Your task to perform on an android device: Do I have any events today? Image 0: 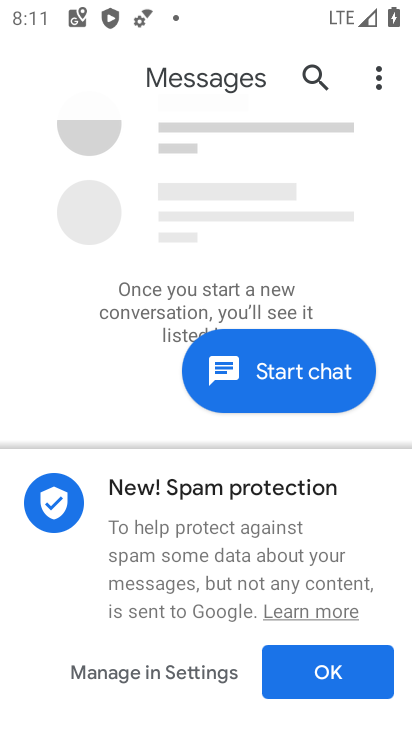
Step 0: press home button
Your task to perform on an android device: Do I have any events today? Image 1: 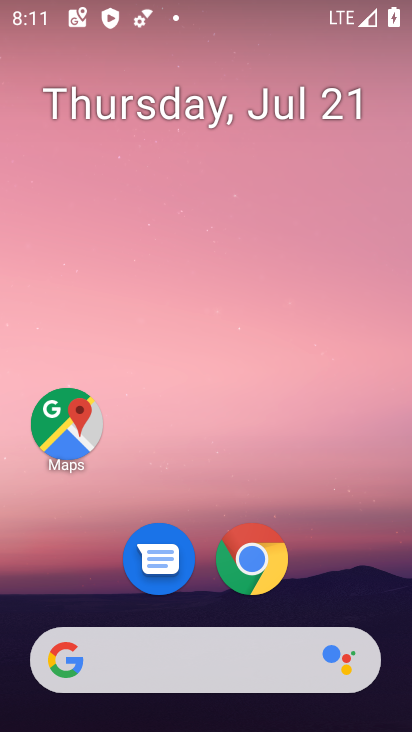
Step 1: drag from (205, 619) to (287, 153)
Your task to perform on an android device: Do I have any events today? Image 2: 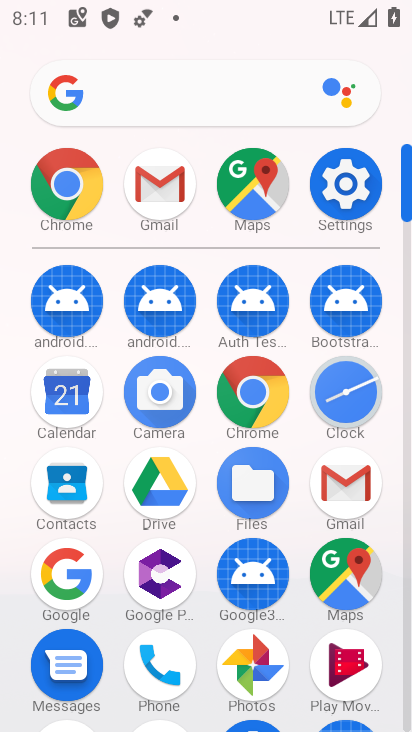
Step 2: click (83, 407)
Your task to perform on an android device: Do I have any events today? Image 3: 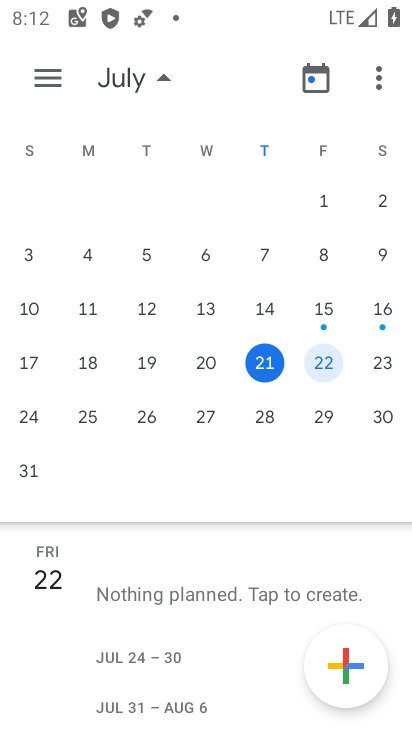
Step 3: task complete